Your task to perform on an android device: Open Google Chrome and click the shortcut for Amazon.com Image 0: 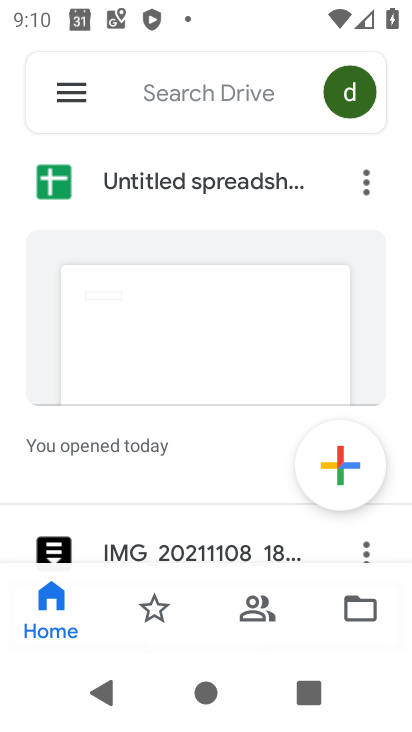
Step 0: press home button
Your task to perform on an android device: Open Google Chrome and click the shortcut for Amazon.com Image 1: 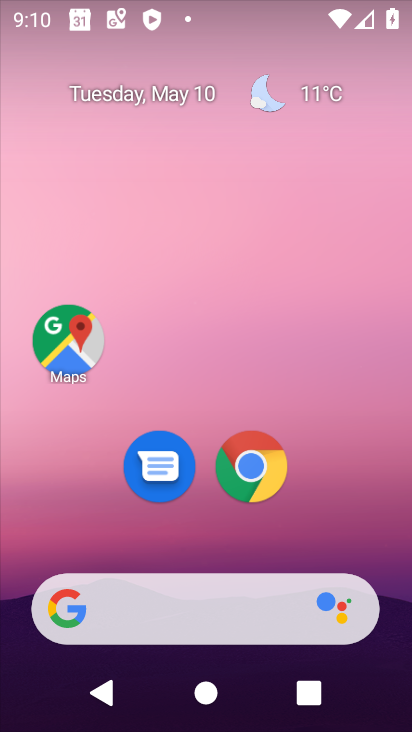
Step 1: drag from (326, 524) to (360, 162)
Your task to perform on an android device: Open Google Chrome and click the shortcut for Amazon.com Image 2: 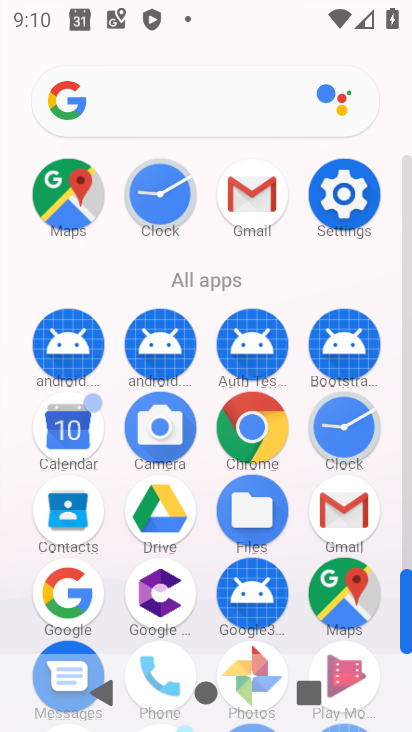
Step 2: click (258, 420)
Your task to perform on an android device: Open Google Chrome and click the shortcut for Amazon.com Image 3: 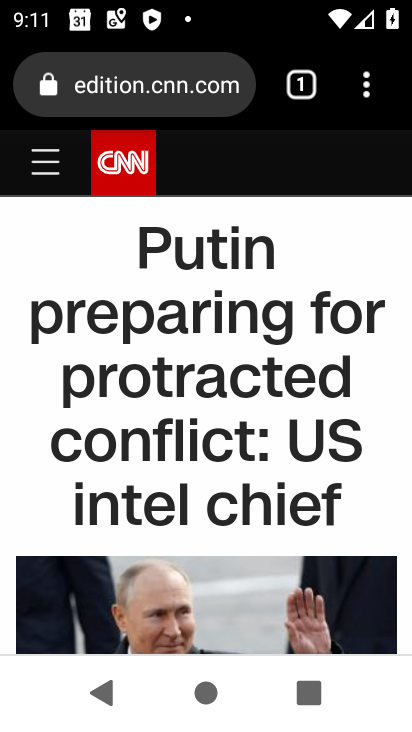
Step 3: click (131, 82)
Your task to perform on an android device: Open Google Chrome and click the shortcut for Amazon.com Image 4: 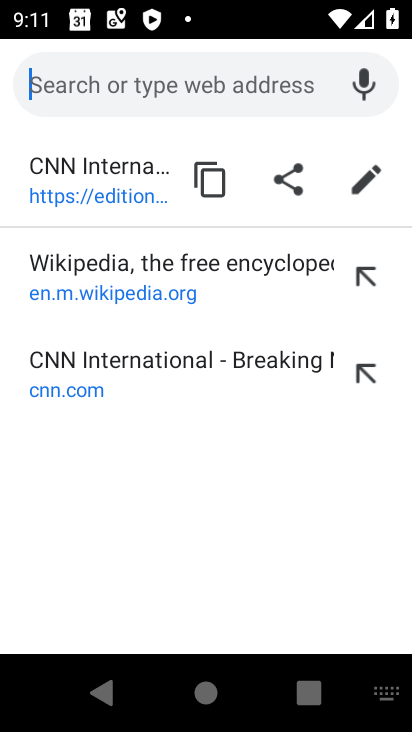
Step 4: type "amazon"
Your task to perform on an android device: Open Google Chrome and click the shortcut for Amazon.com Image 5: 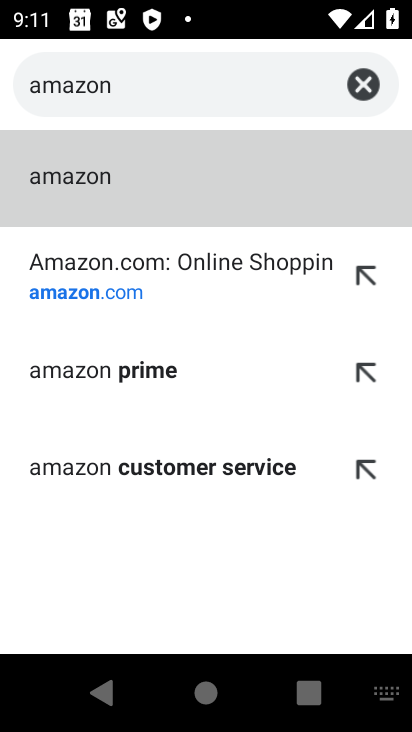
Step 5: click (173, 290)
Your task to perform on an android device: Open Google Chrome and click the shortcut for Amazon.com Image 6: 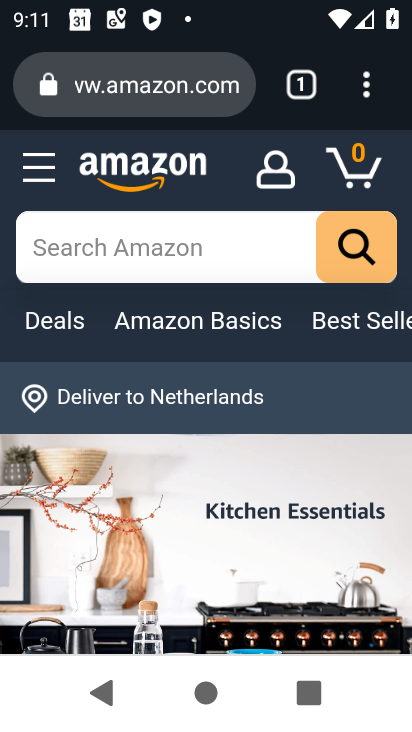
Step 6: drag from (358, 90) to (182, 358)
Your task to perform on an android device: Open Google Chrome and click the shortcut for Amazon.com Image 7: 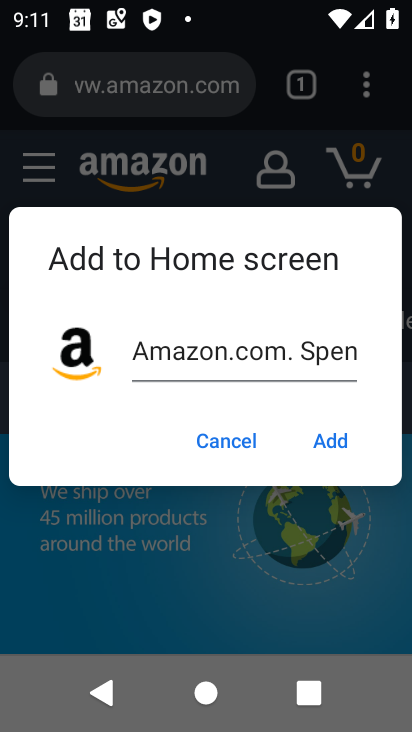
Step 7: click (317, 442)
Your task to perform on an android device: Open Google Chrome and click the shortcut for Amazon.com Image 8: 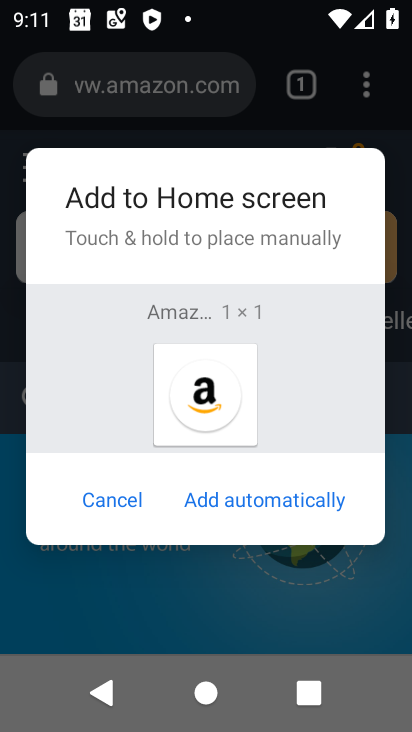
Step 8: click (271, 497)
Your task to perform on an android device: Open Google Chrome and click the shortcut for Amazon.com Image 9: 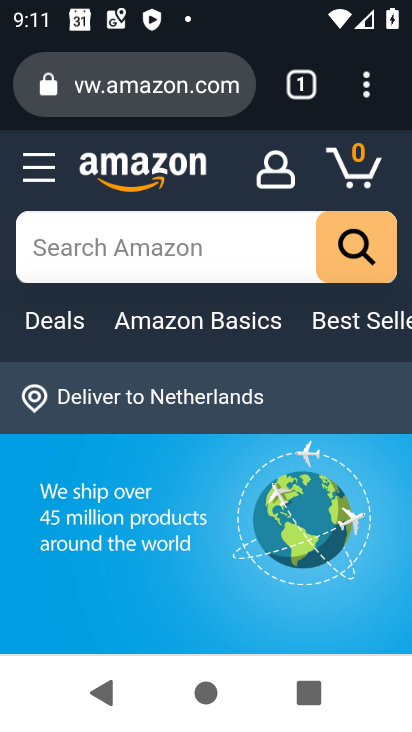
Step 9: task complete